Your task to perform on an android device: toggle javascript in the chrome app Image 0: 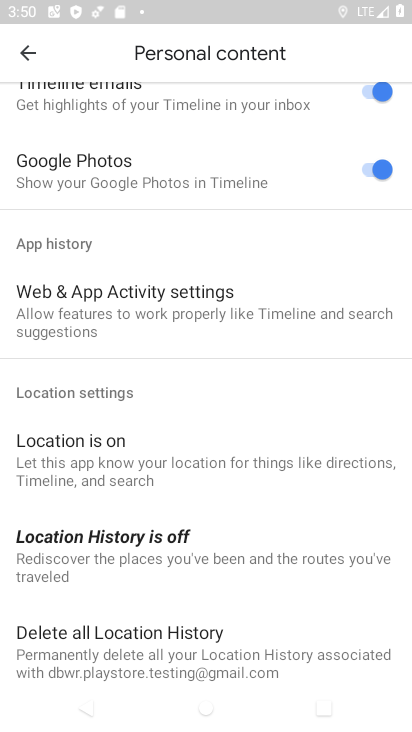
Step 0: press home button
Your task to perform on an android device: toggle javascript in the chrome app Image 1: 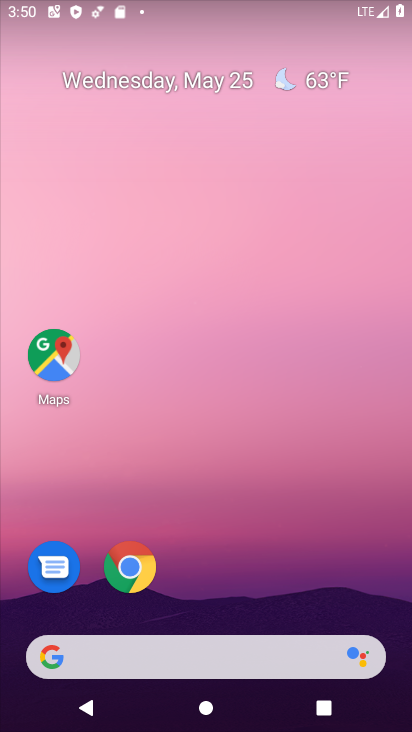
Step 1: drag from (283, 598) to (247, 187)
Your task to perform on an android device: toggle javascript in the chrome app Image 2: 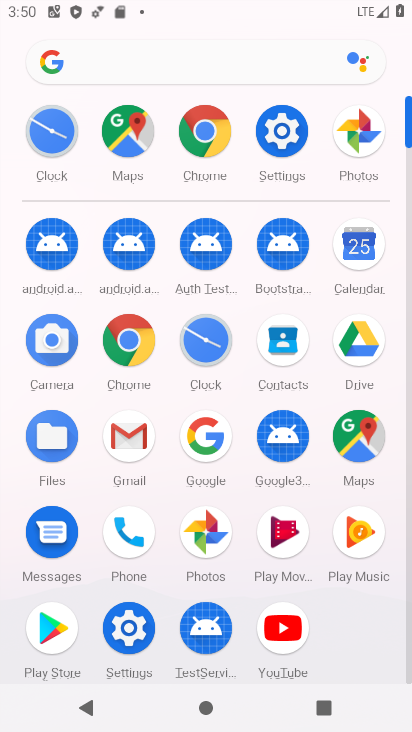
Step 2: click (124, 328)
Your task to perform on an android device: toggle javascript in the chrome app Image 3: 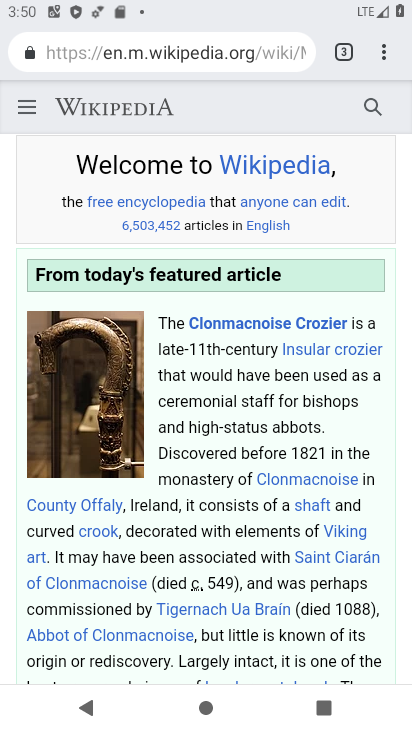
Step 3: drag from (380, 52) to (245, 600)
Your task to perform on an android device: toggle javascript in the chrome app Image 4: 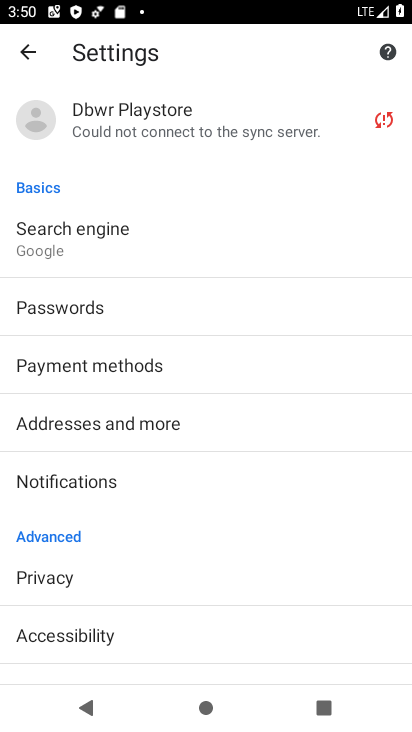
Step 4: drag from (179, 622) to (247, 229)
Your task to perform on an android device: toggle javascript in the chrome app Image 5: 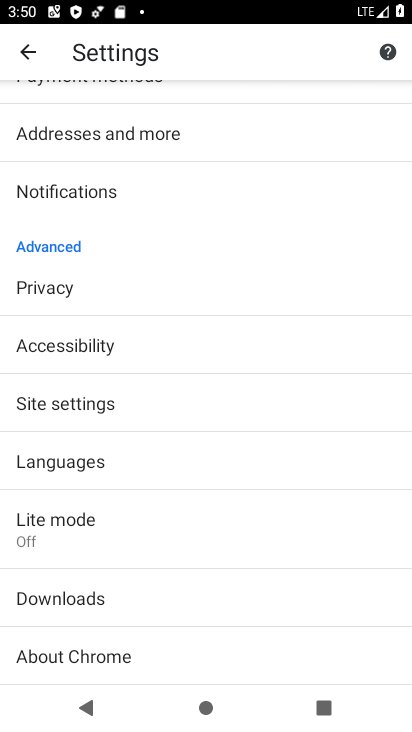
Step 5: click (97, 394)
Your task to perform on an android device: toggle javascript in the chrome app Image 6: 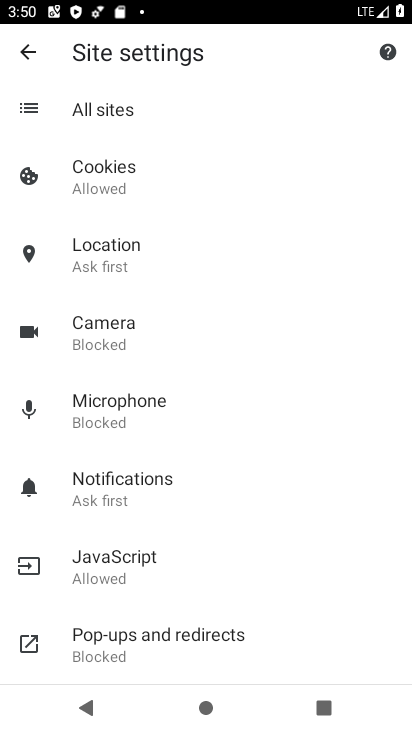
Step 6: click (122, 559)
Your task to perform on an android device: toggle javascript in the chrome app Image 7: 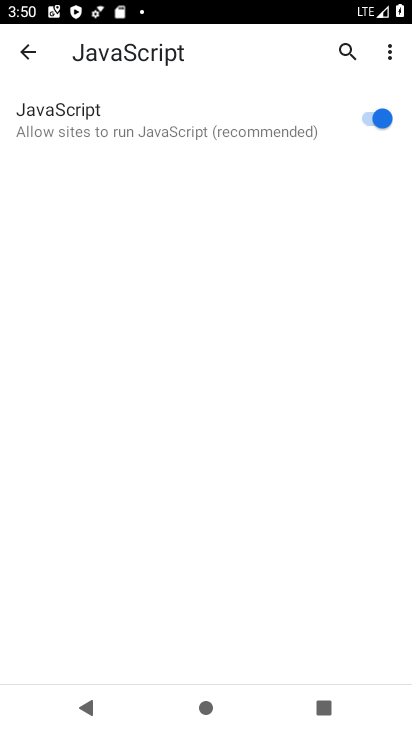
Step 7: click (365, 120)
Your task to perform on an android device: toggle javascript in the chrome app Image 8: 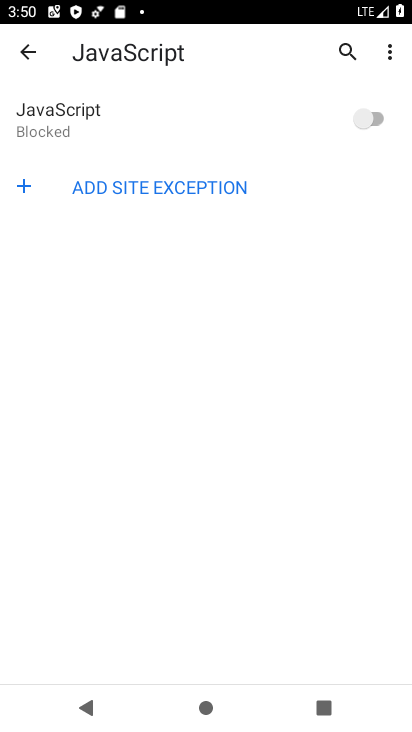
Step 8: task complete